Your task to perform on an android device: Search for pizza restaurants on Maps Image 0: 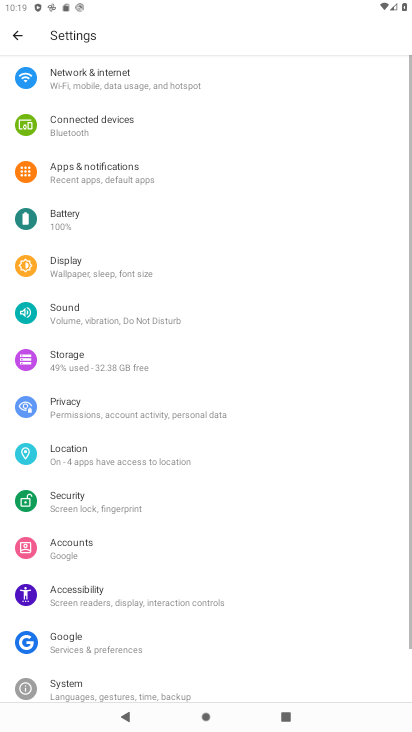
Step 0: press home button
Your task to perform on an android device: Search for pizza restaurants on Maps Image 1: 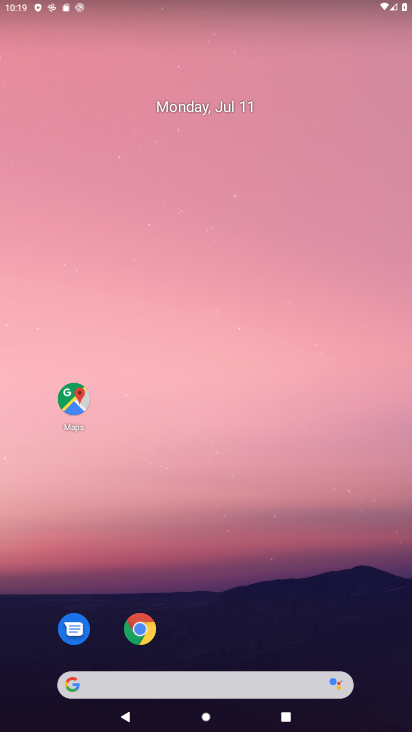
Step 1: drag from (223, 637) to (224, 415)
Your task to perform on an android device: Search for pizza restaurants on Maps Image 2: 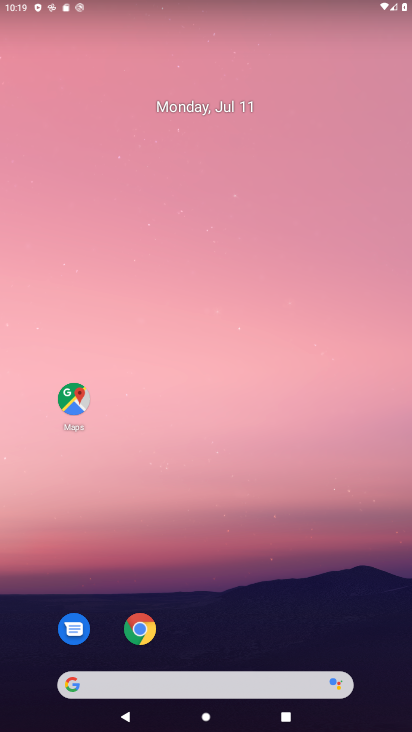
Step 2: drag from (235, 650) to (197, 408)
Your task to perform on an android device: Search for pizza restaurants on Maps Image 3: 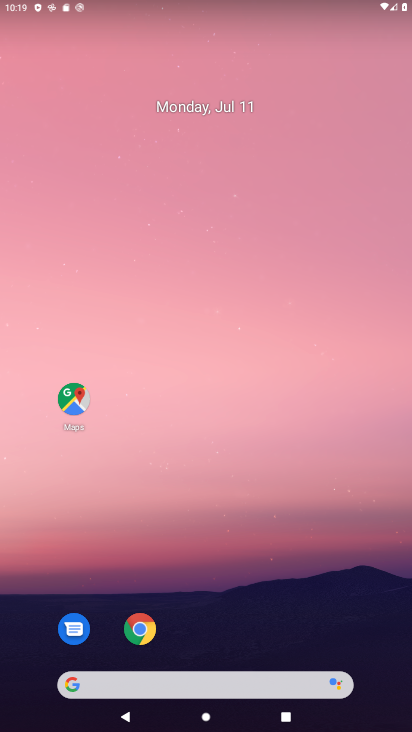
Step 3: click (227, 647)
Your task to perform on an android device: Search for pizza restaurants on Maps Image 4: 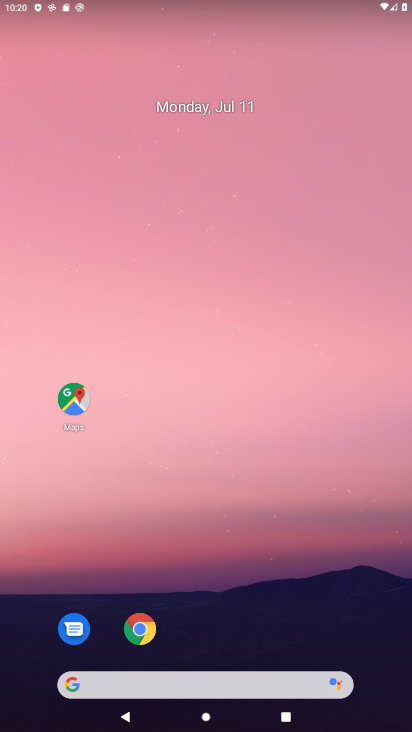
Step 4: click (77, 405)
Your task to perform on an android device: Search for pizza restaurants on Maps Image 5: 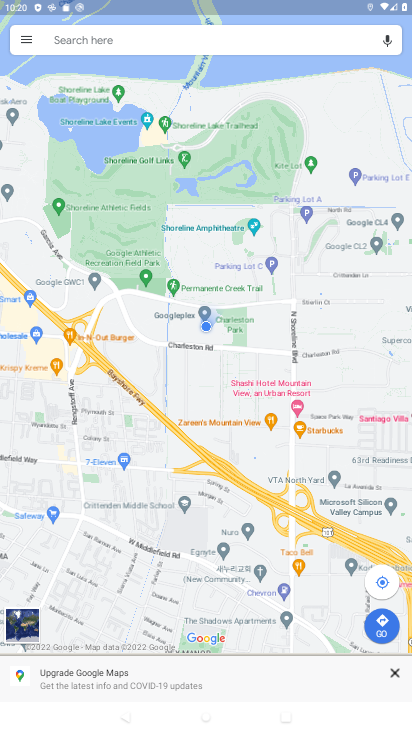
Step 5: click (235, 32)
Your task to perform on an android device: Search for pizza restaurants on Maps Image 6: 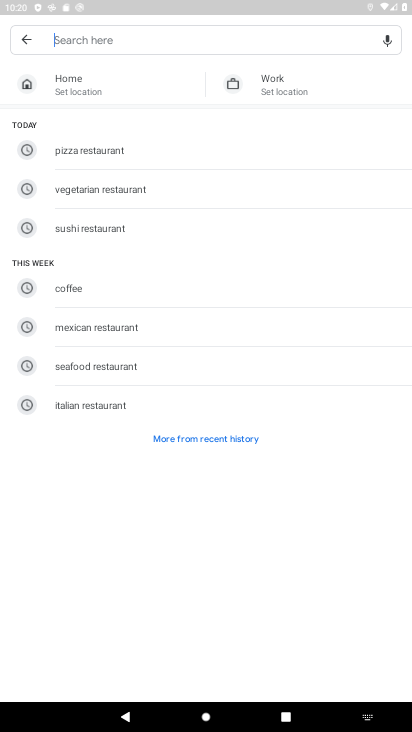
Step 6: click (147, 162)
Your task to perform on an android device: Search for pizza restaurants on Maps Image 7: 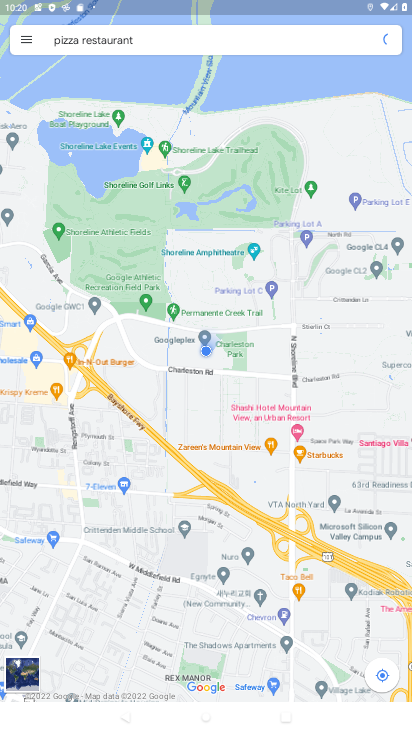
Step 7: task complete